Your task to perform on an android device: Open Amazon Image 0: 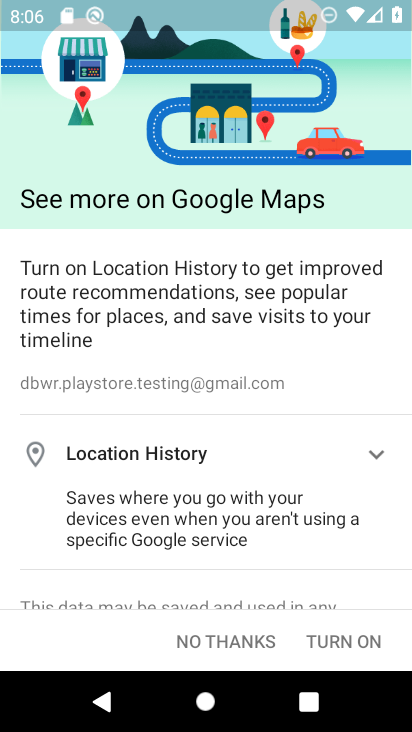
Step 0: click (359, 639)
Your task to perform on an android device: Open Amazon Image 1: 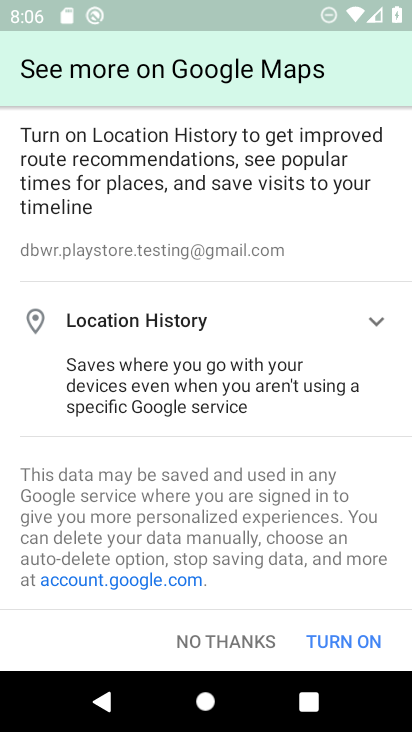
Step 1: press home button
Your task to perform on an android device: Open Amazon Image 2: 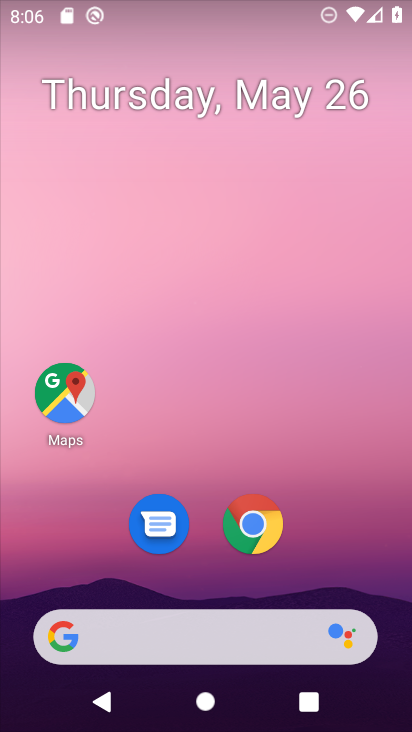
Step 2: click (252, 519)
Your task to perform on an android device: Open Amazon Image 3: 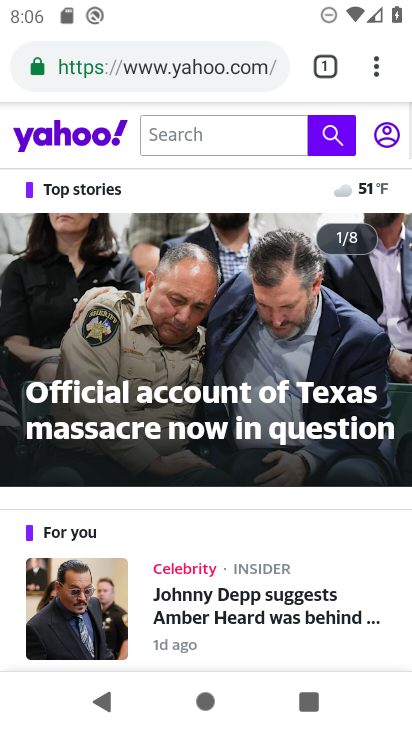
Step 3: click (369, 62)
Your task to perform on an android device: Open Amazon Image 4: 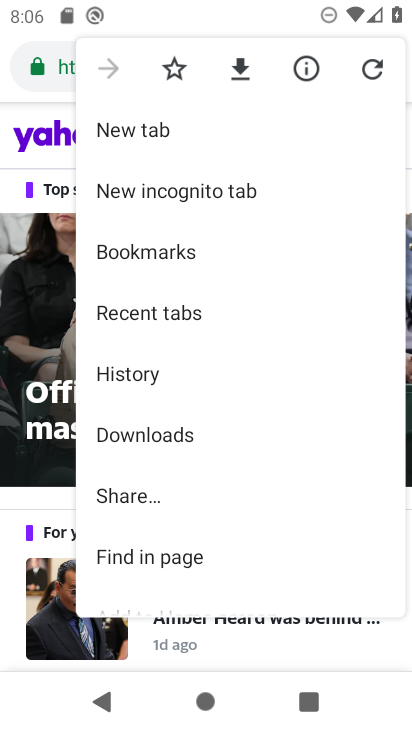
Step 4: click (254, 132)
Your task to perform on an android device: Open Amazon Image 5: 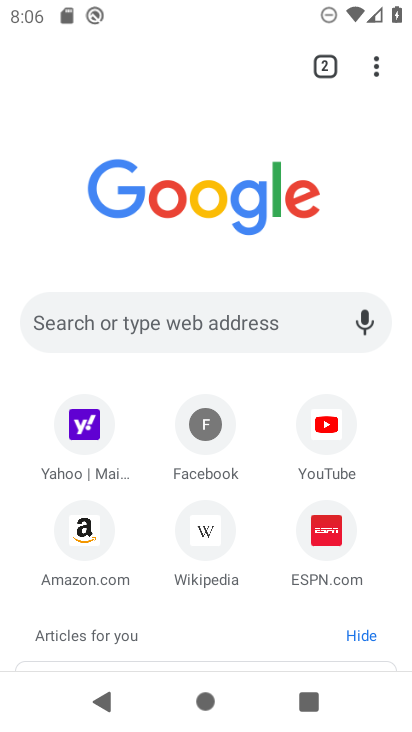
Step 5: click (80, 518)
Your task to perform on an android device: Open Amazon Image 6: 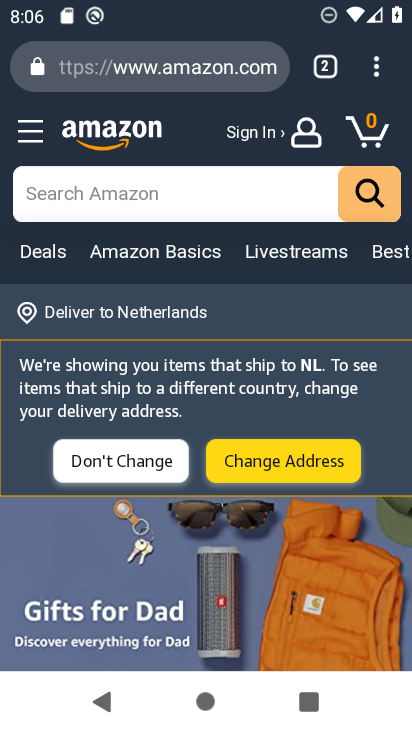
Step 6: task complete